Your task to perform on an android device: Go to Reddit.com Image 0: 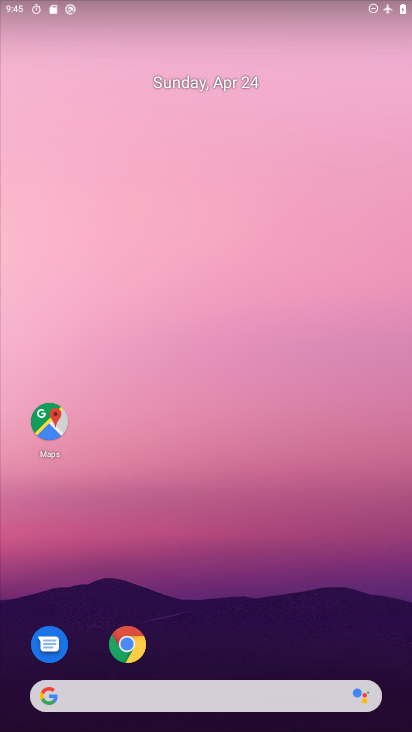
Step 0: click (133, 651)
Your task to perform on an android device: Go to Reddit.com Image 1: 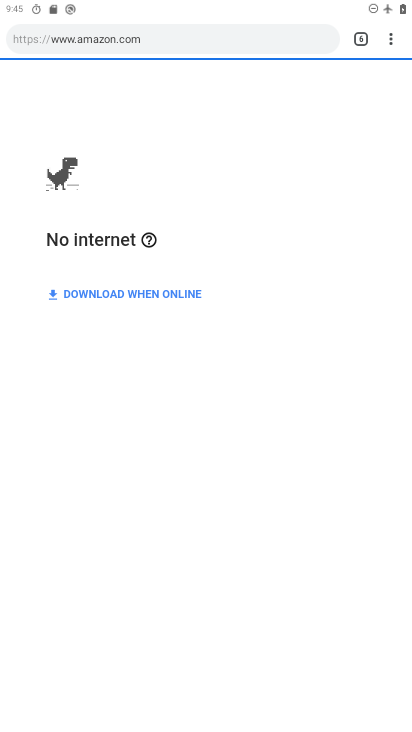
Step 1: click (244, 41)
Your task to perform on an android device: Go to Reddit.com Image 2: 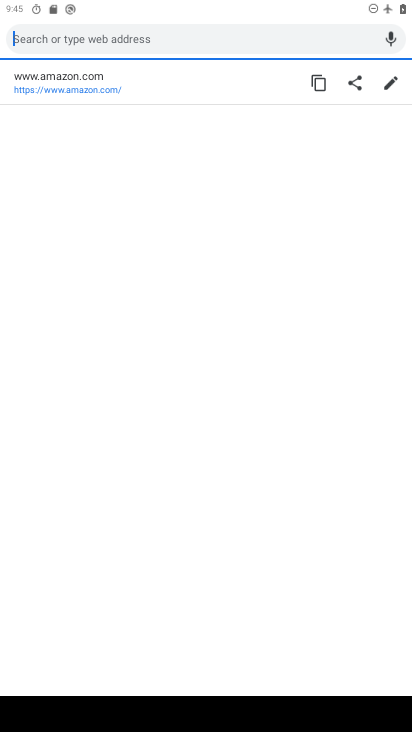
Step 2: task complete